Your task to perform on an android device: turn off smart reply in the gmail app Image 0: 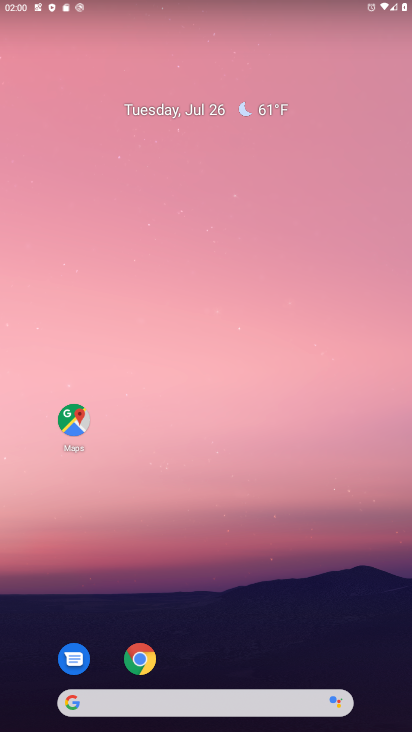
Step 0: drag from (264, 645) to (231, 7)
Your task to perform on an android device: turn off smart reply in the gmail app Image 1: 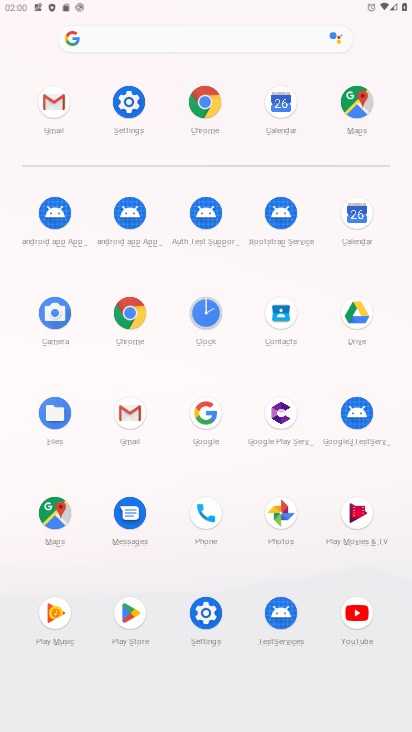
Step 1: click (129, 415)
Your task to perform on an android device: turn off smart reply in the gmail app Image 2: 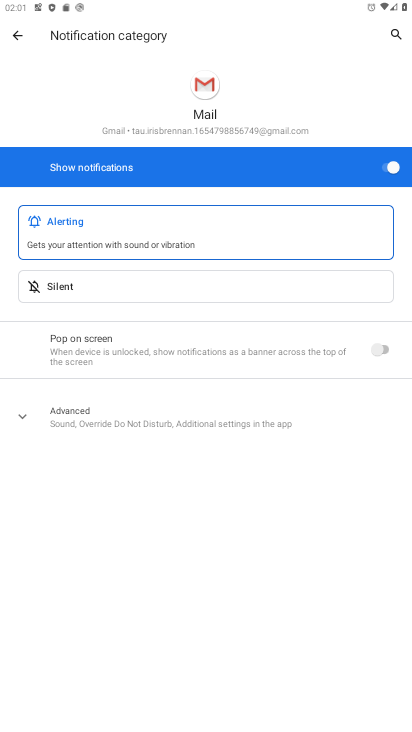
Step 2: click (20, 30)
Your task to perform on an android device: turn off smart reply in the gmail app Image 3: 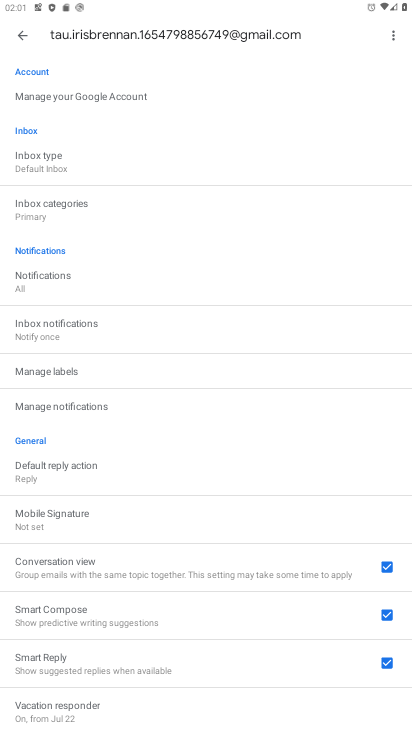
Step 3: drag from (235, 571) to (237, 164)
Your task to perform on an android device: turn off smart reply in the gmail app Image 4: 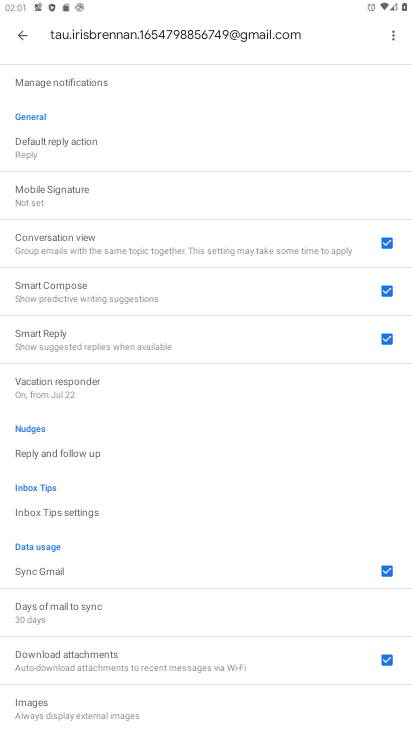
Step 4: click (388, 340)
Your task to perform on an android device: turn off smart reply in the gmail app Image 5: 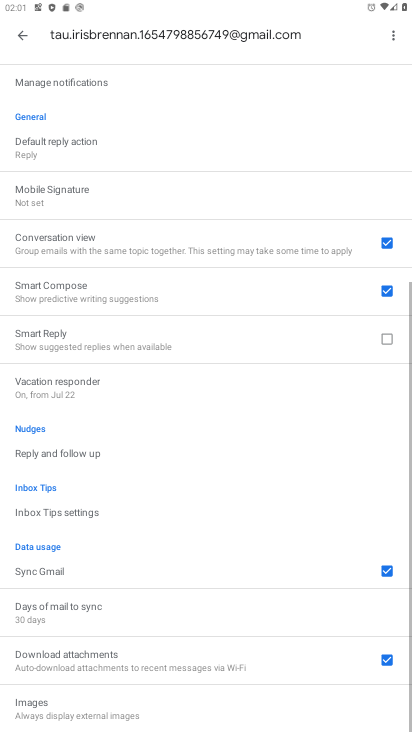
Step 5: task complete